Your task to perform on an android device: turn off smart reply in the gmail app Image 0: 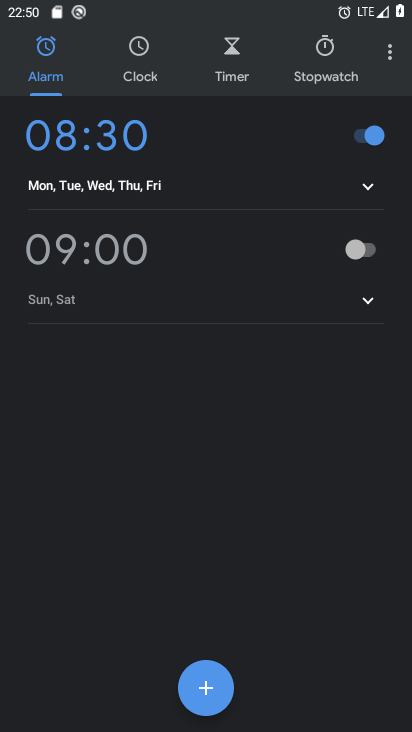
Step 0: press home button
Your task to perform on an android device: turn off smart reply in the gmail app Image 1: 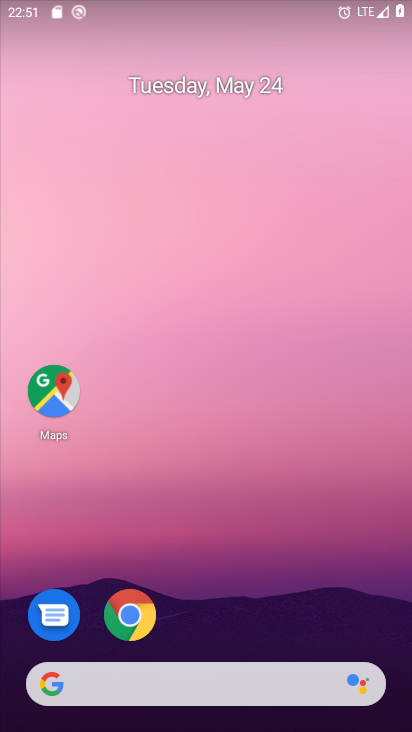
Step 1: drag from (289, 609) to (311, 151)
Your task to perform on an android device: turn off smart reply in the gmail app Image 2: 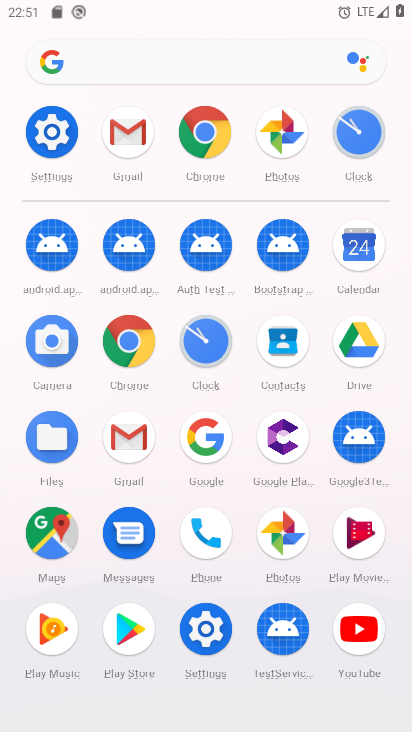
Step 2: click (130, 435)
Your task to perform on an android device: turn off smart reply in the gmail app Image 3: 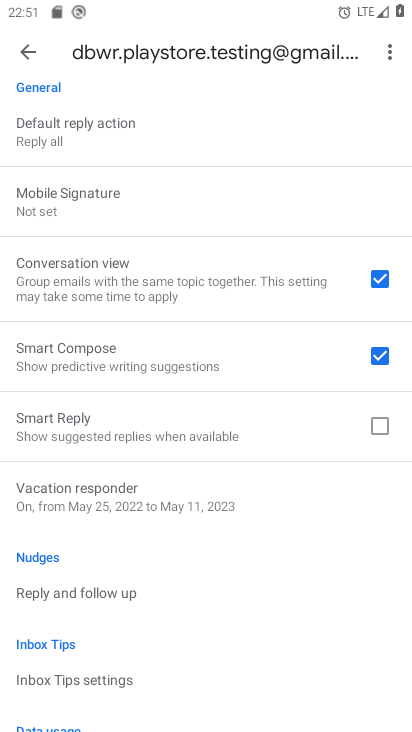
Step 3: task complete